Your task to perform on an android device: Search for sushi restaurants on Maps Image 0: 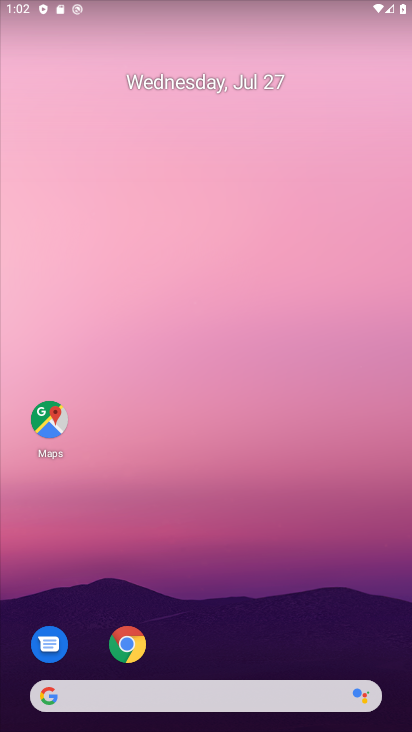
Step 0: click (55, 413)
Your task to perform on an android device: Search for sushi restaurants on Maps Image 1: 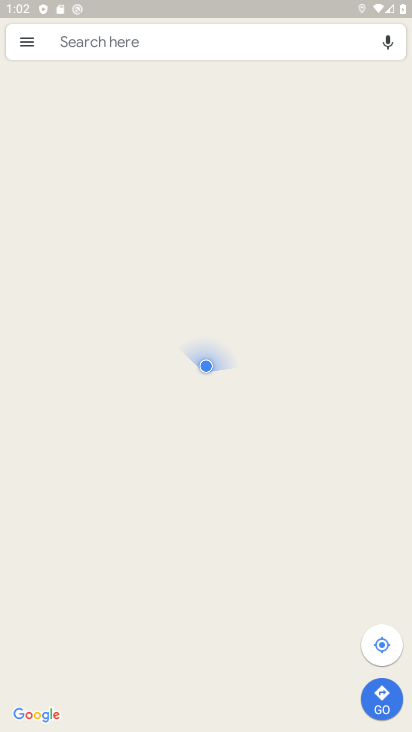
Step 1: click (146, 46)
Your task to perform on an android device: Search for sushi restaurants on Maps Image 2: 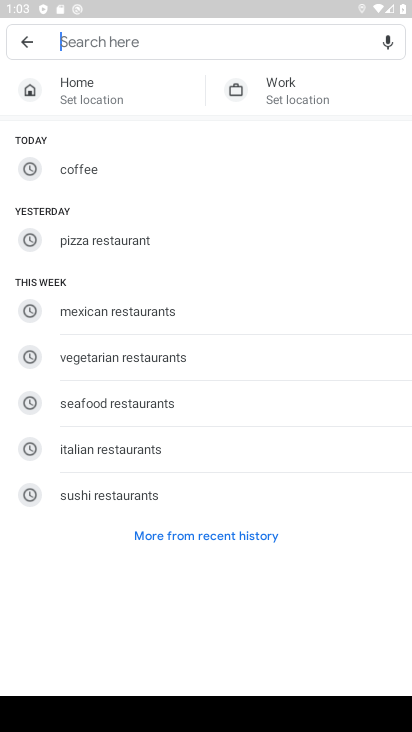
Step 2: type "sushi restaurants"
Your task to perform on an android device: Search for sushi restaurants on Maps Image 3: 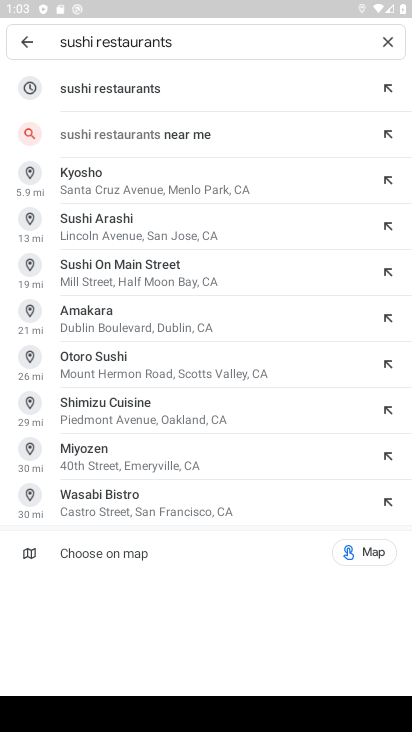
Step 3: click (202, 76)
Your task to perform on an android device: Search for sushi restaurants on Maps Image 4: 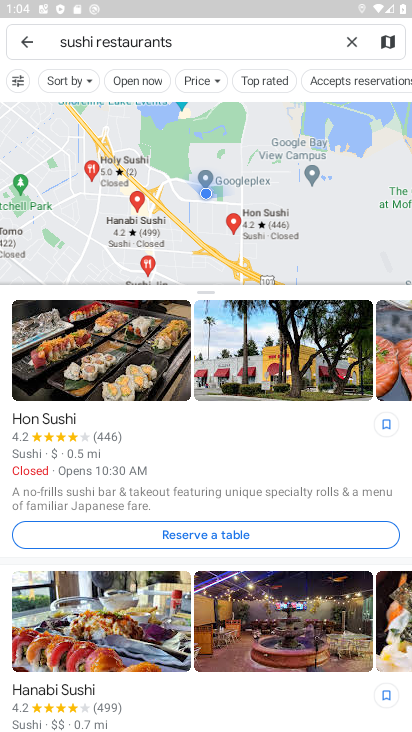
Step 4: task complete